Your task to perform on an android device: turn on javascript in the chrome app Image 0: 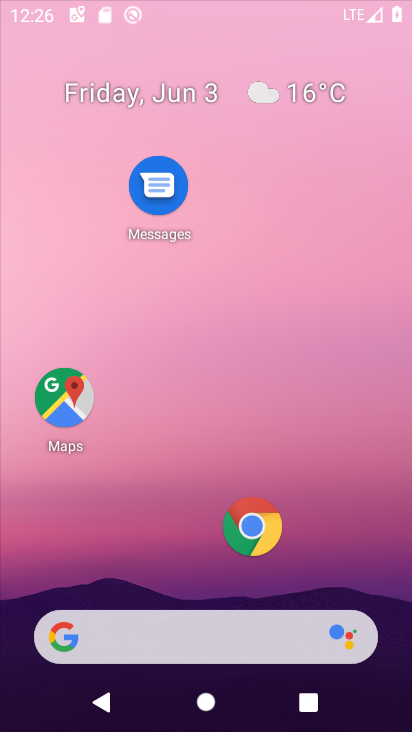
Step 0: press home button
Your task to perform on an android device: turn on javascript in the chrome app Image 1: 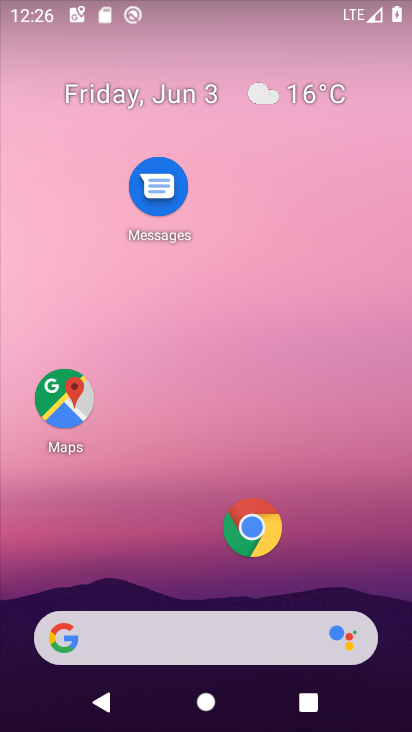
Step 1: click (250, 523)
Your task to perform on an android device: turn on javascript in the chrome app Image 2: 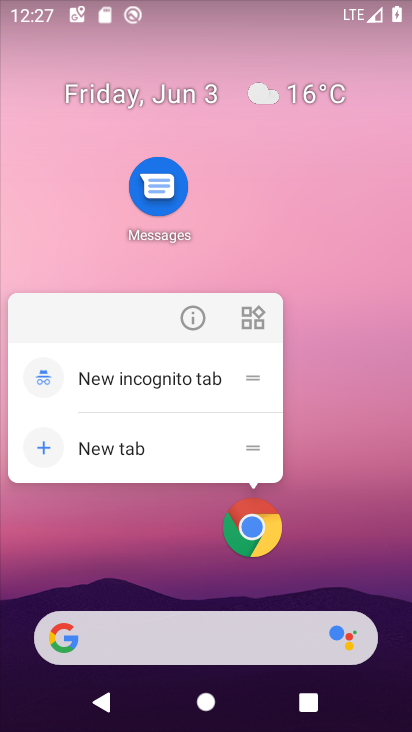
Step 2: click (247, 533)
Your task to perform on an android device: turn on javascript in the chrome app Image 3: 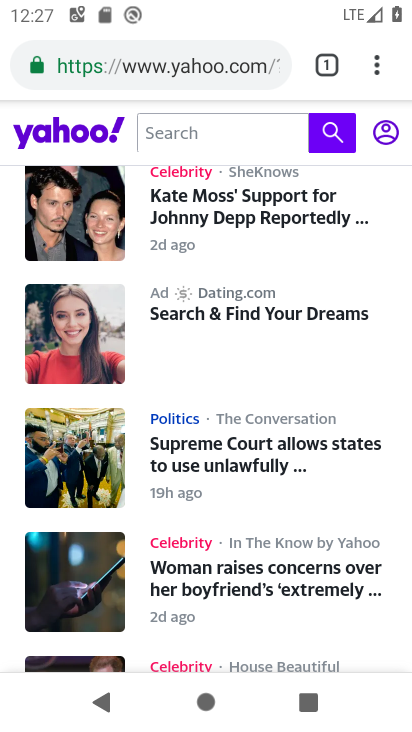
Step 3: click (386, 56)
Your task to perform on an android device: turn on javascript in the chrome app Image 4: 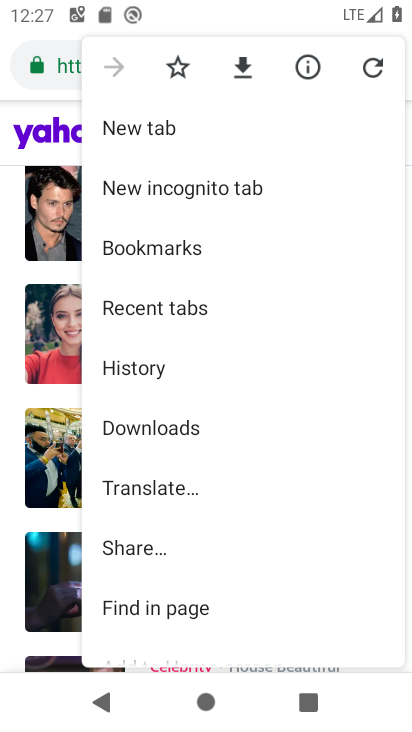
Step 4: drag from (234, 580) to (270, 219)
Your task to perform on an android device: turn on javascript in the chrome app Image 5: 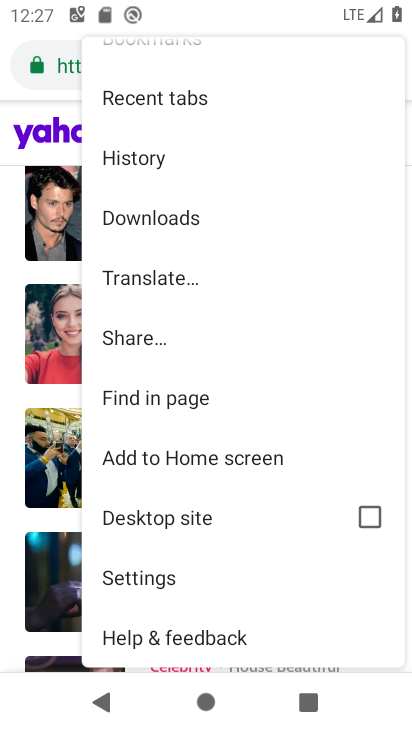
Step 5: click (180, 571)
Your task to perform on an android device: turn on javascript in the chrome app Image 6: 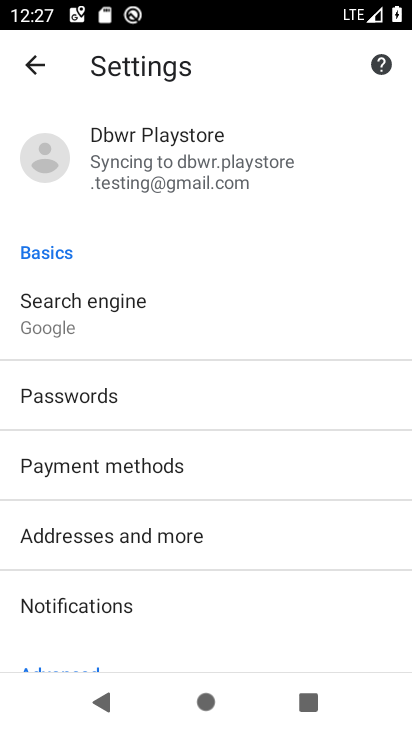
Step 6: drag from (212, 607) to (252, 256)
Your task to perform on an android device: turn on javascript in the chrome app Image 7: 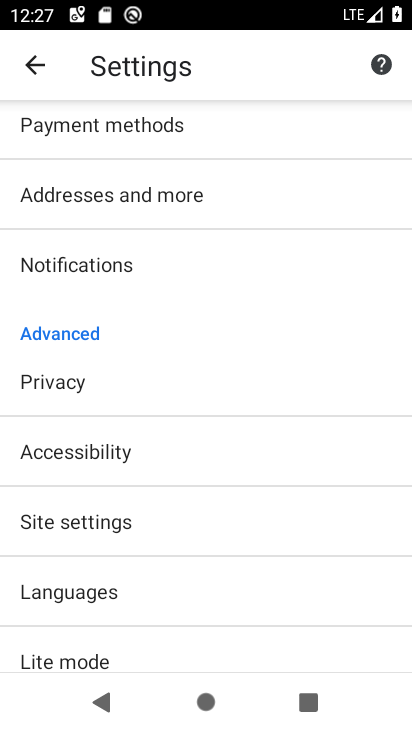
Step 7: click (156, 514)
Your task to perform on an android device: turn on javascript in the chrome app Image 8: 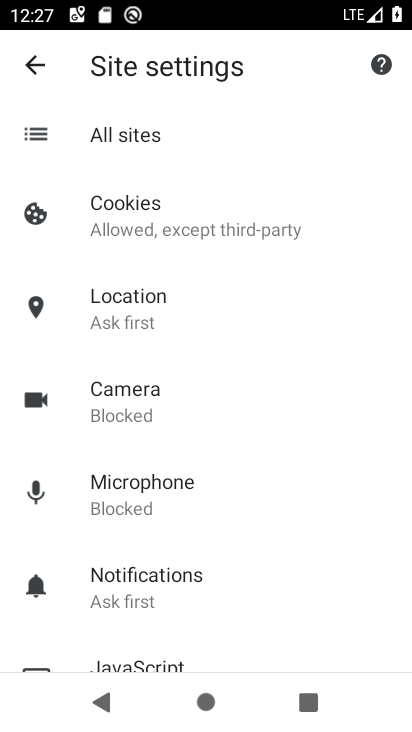
Step 8: click (199, 651)
Your task to perform on an android device: turn on javascript in the chrome app Image 9: 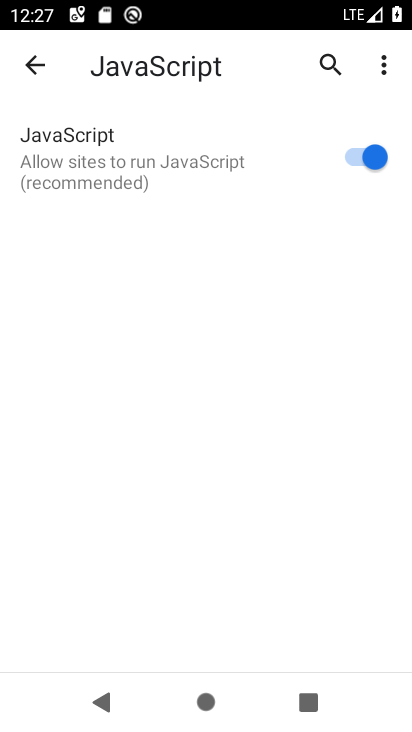
Step 9: task complete